Your task to perform on an android device: allow notifications from all sites in the chrome app Image 0: 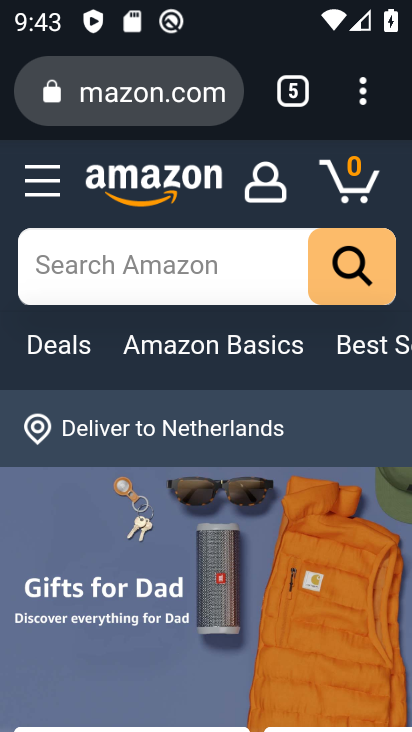
Step 0: press home button
Your task to perform on an android device: allow notifications from all sites in the chrome app Image 1: 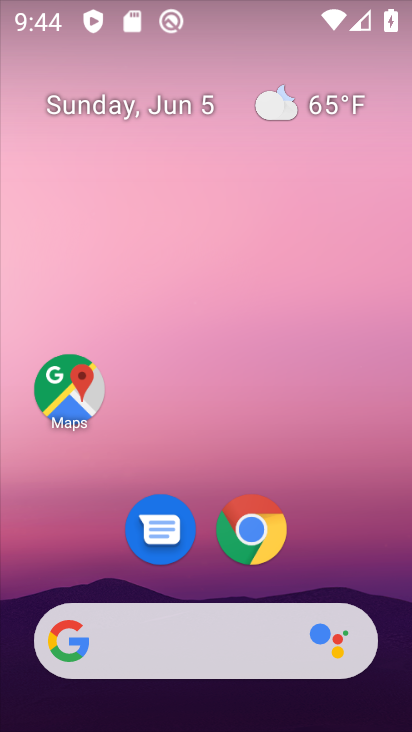
Step 1: click (252, 537)
Your task to perform on an android device: allow notifications from all sites in the chrome app Image 2: 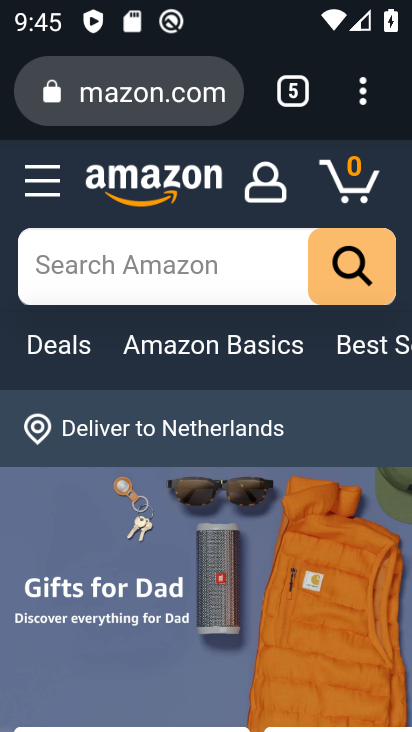
Step 2: click (364, 87)
Your task to perform on an android device: allow notifications from all sites in the chrome app Image 3: 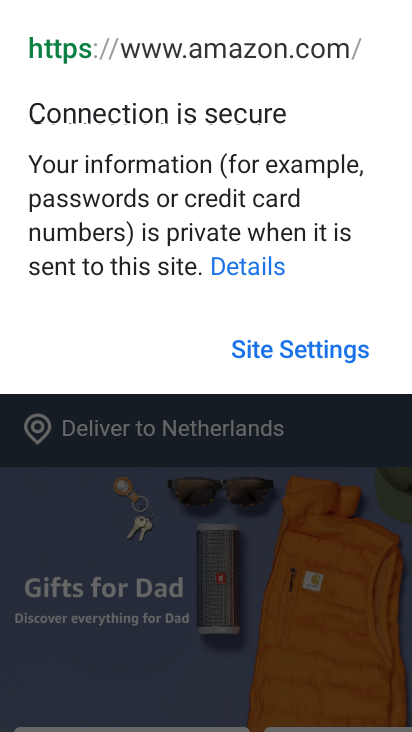
Step 3: click (175, 503)
Your task to perform on an android device: allow notifications from all sites in the chrome app Image 4: 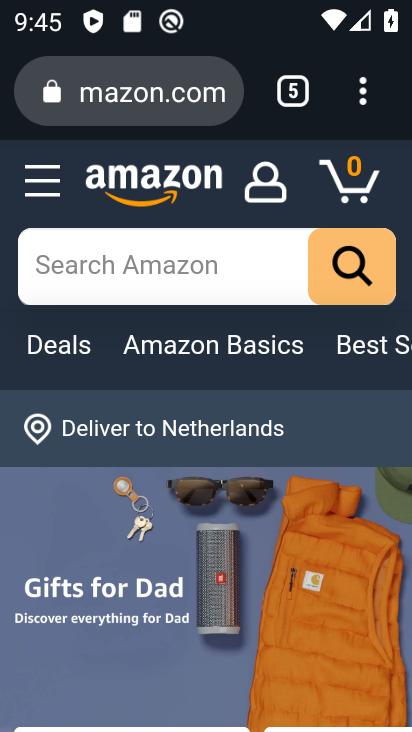
Step 4: click (366, 97)
Your task to perform on an android device: allow notifications from all sites in the chrome app Image 5: 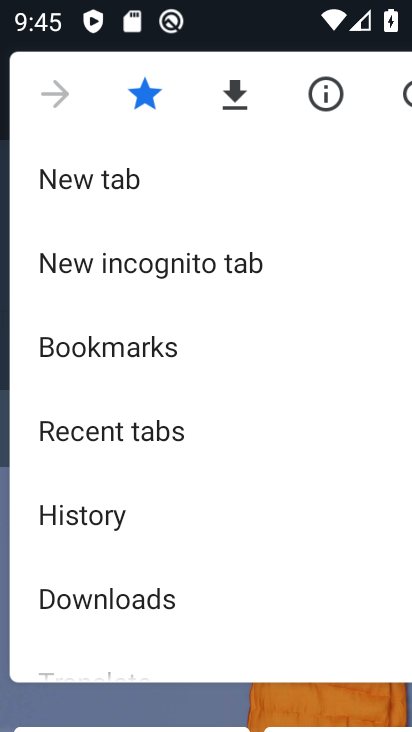
Step 5: drag from (321, 591) to (213, 187)
Your task to perform on an android device: allow notifications from all sites in the chrome app Image 6: 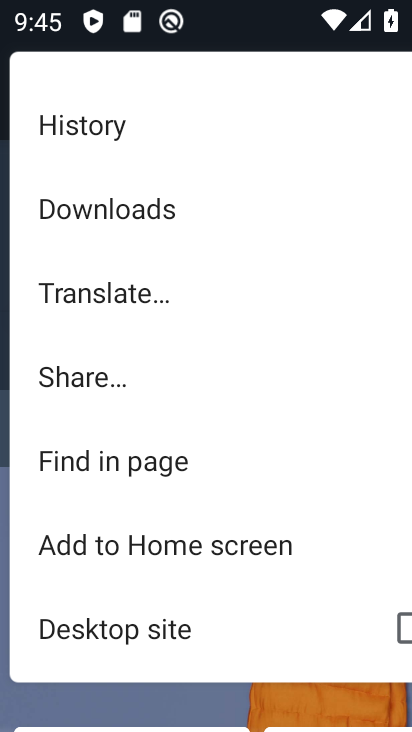
Step 6: drag from (258, 614) to (252, 29)
Your task to perform on an android device: allow notifications from all sites in the chrome app Image 7: 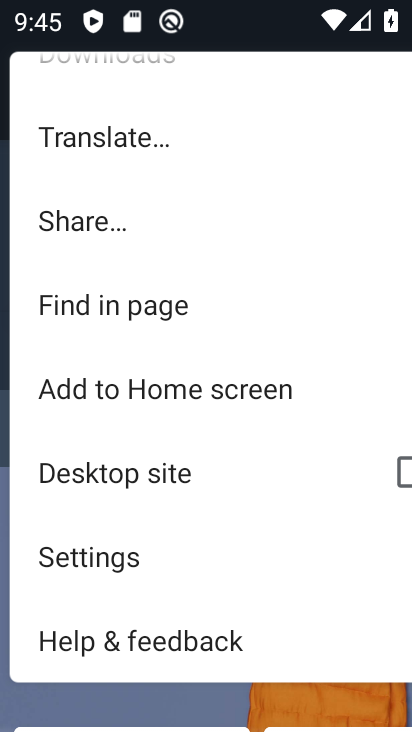
Step 7: drag from (190, 621) to (187, 102)
Your task to perform on an android device: allow notifications from all sites in the chrome app Image 8: 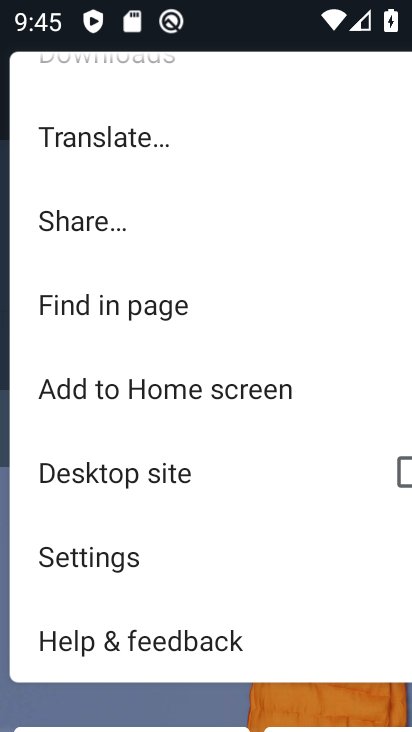
Step 8: click (95, 528)
Your task to perform on an android device: allow notifications from all sites in the chrome app Image 9: 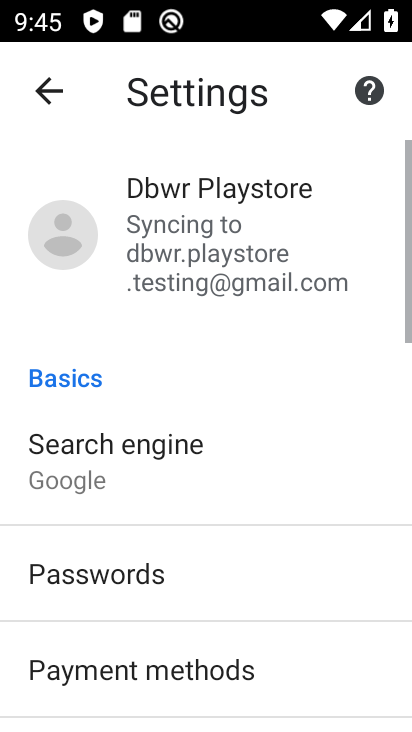
Step 9: drag from (133, 556) to (164, 47)
Your task to perform on an android device: allow notifications from all sites in the chrome app Image 10: 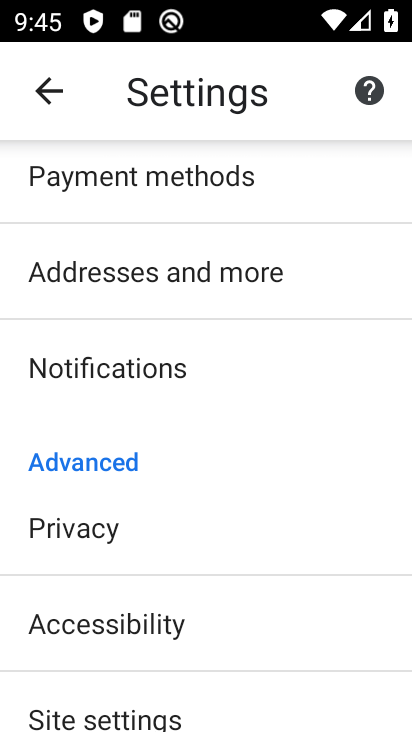
Step 10: click (188, 362)
Your task to perform on an android device: allow notifications from all sites in the chrome app Image 11: 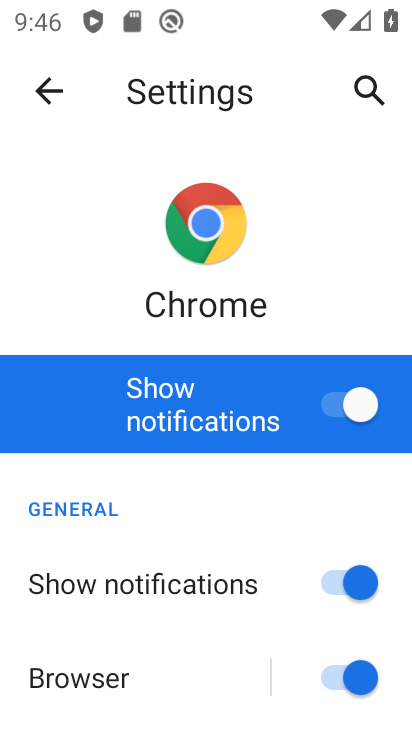
Step 11: task complete